Your task to perform on an android device: Open Amazon Image 0: 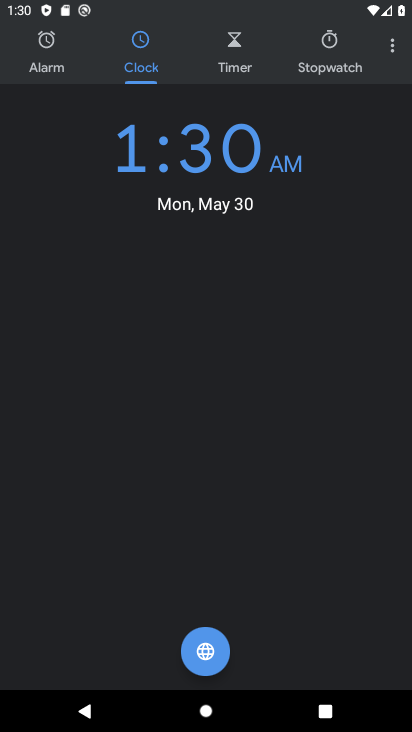
Step 0: press home button
Your task to perform on an android device: Open Amazon Image 1: 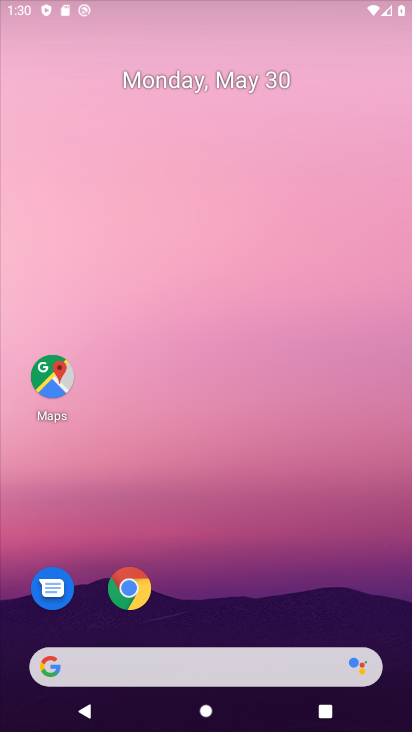
Step 1: drag from (309, 607) to (184, 59)
Your task to perform on an android device: Open Amazon Image 2: 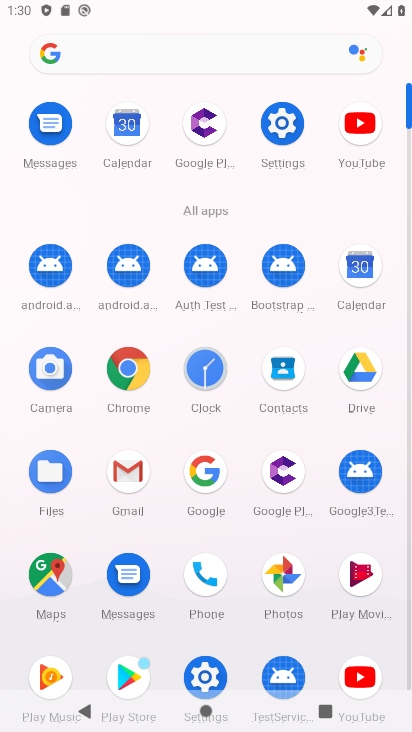
Step 2: click (133, 369)
Your task to perform on an android device: Open Amazon Image 3: 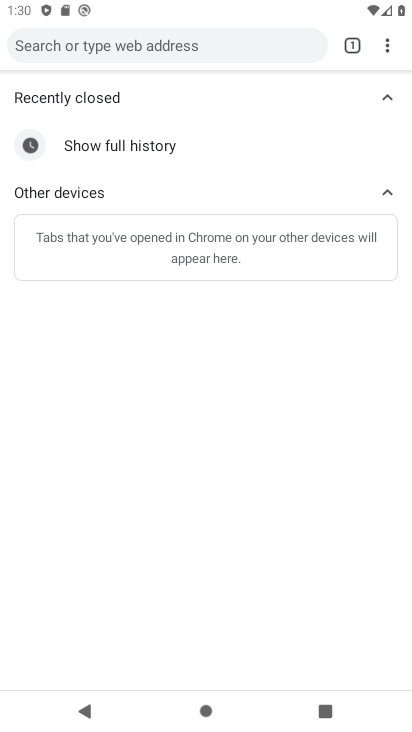
Step 3: click (352, 40)
Your task to perform on an android device: Open Amazon Image 4: 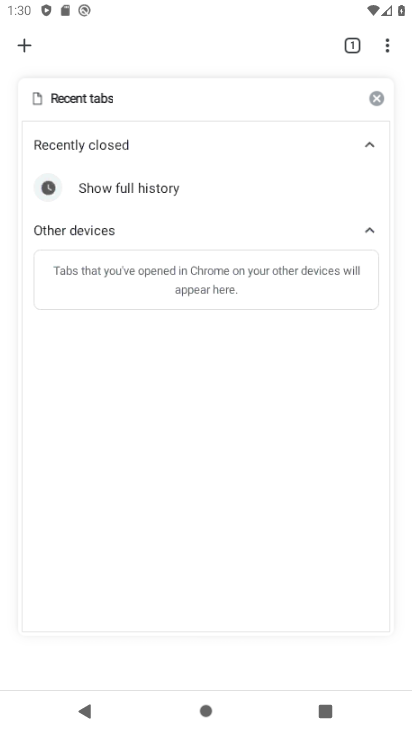
Step 4: click (19, 41)
Your task to perform on an android device: Open Amazon Image 5: 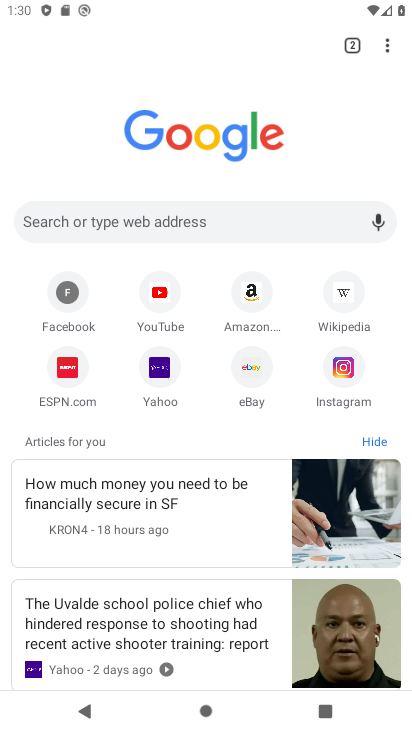
Step 5: click (239, 311)
Your task to perform on an android device: Open Amazon Image 6: 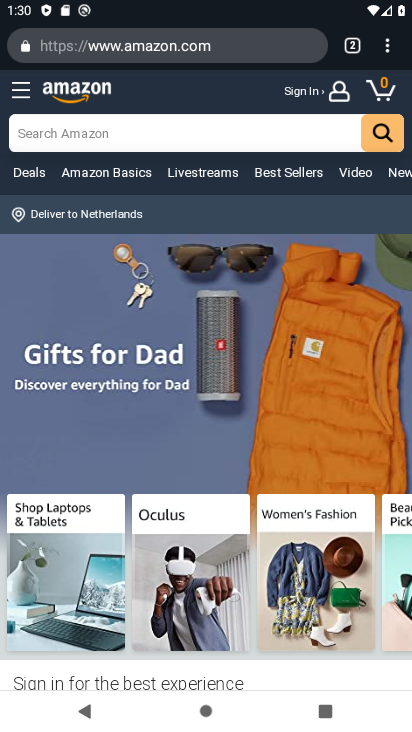
Step 6: task complete